Your task to perform on an android device: show emergency info Image 0: 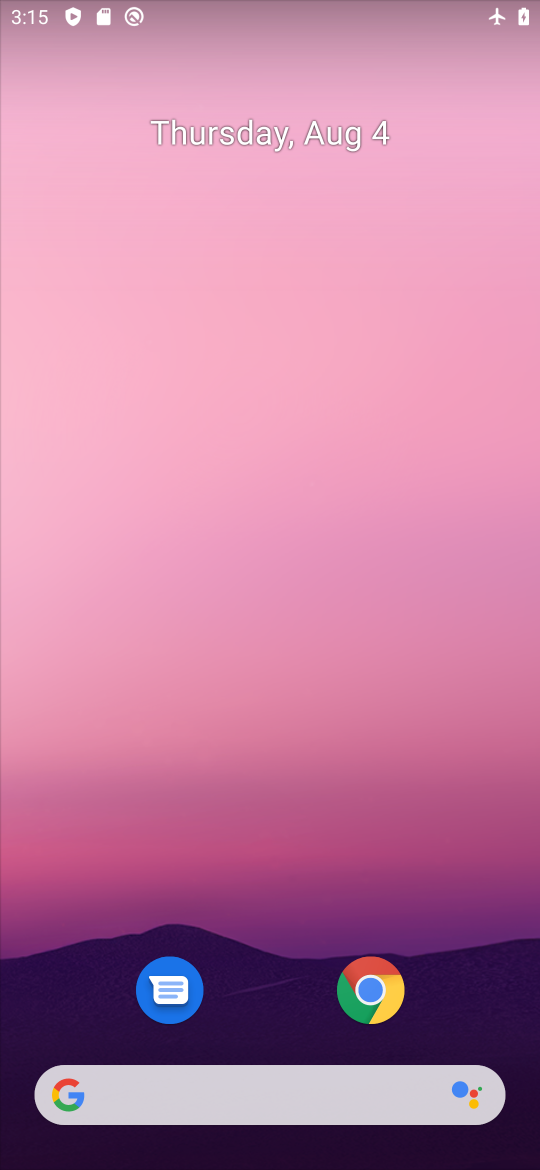
Step 0: task complete